Your task to perform on an android device: Open the phone app and click the voicemail tab. Image 0: 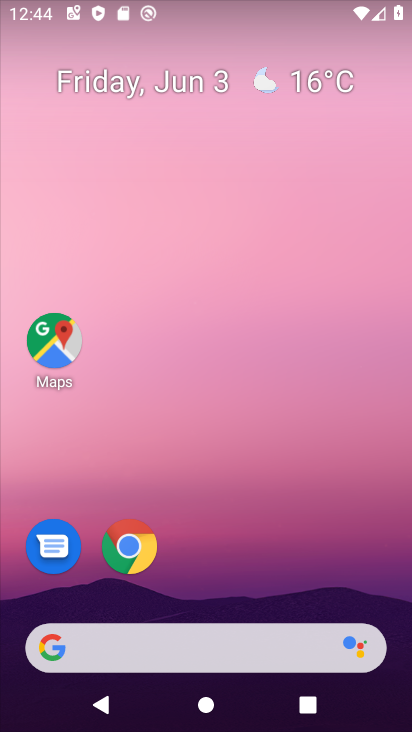
Step 0: drag from (280, 498) to (183, 0)
Your task to perform on an android device: Open the phone app and click the voicemail tab. Image 1: 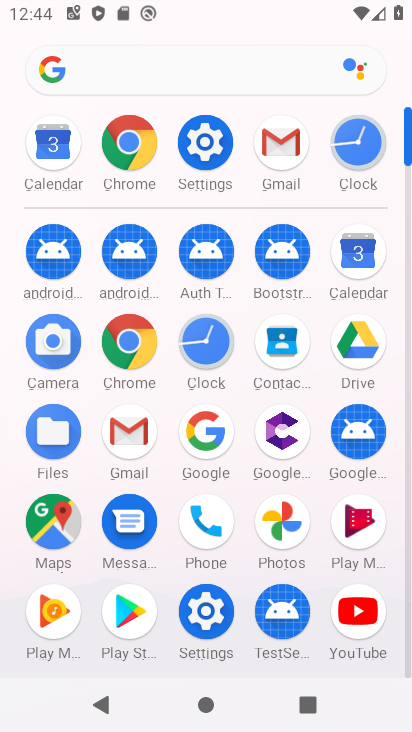
Step 1: click (204, 528)
Your task to perform on an android device: Open the phone app and click the voicemail tab. Image 2: 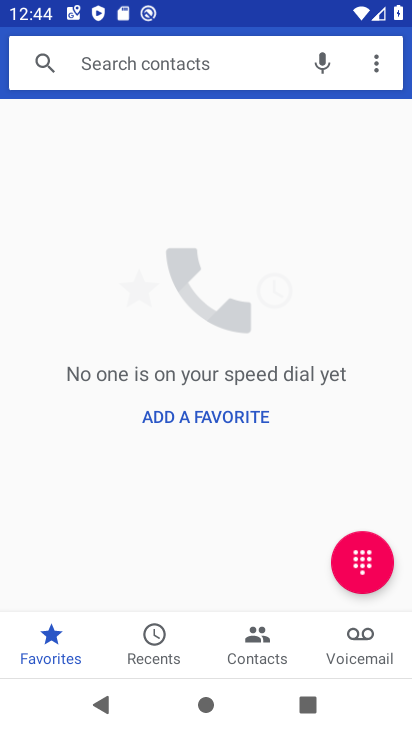
Step 2: click (353, 638)
Your task to perform on an android device: Open the phone app and click the voicemail tab. Image 3: 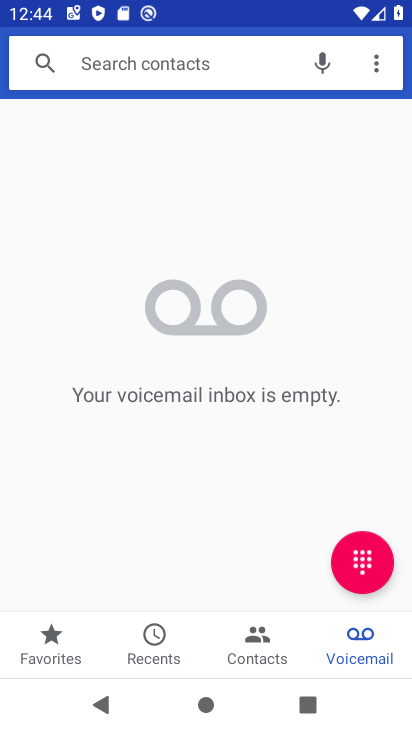
Step 3: task complete